Your task to perform on an android device: install app "Gmail" Image 0: 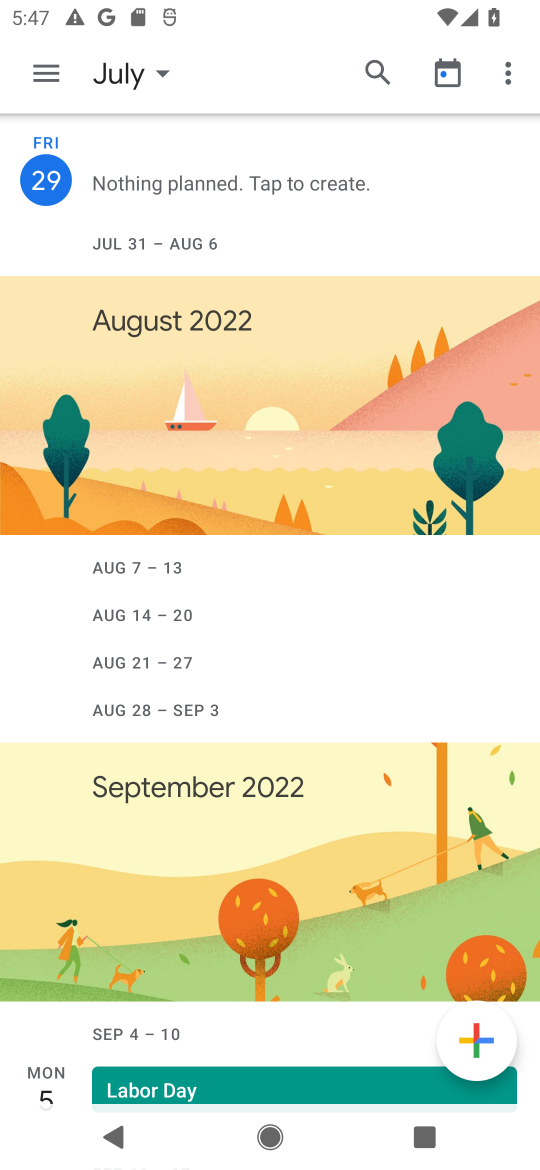
Step 0: press home button
Your task to perform on an android device: install app "Gmail" Image 1: 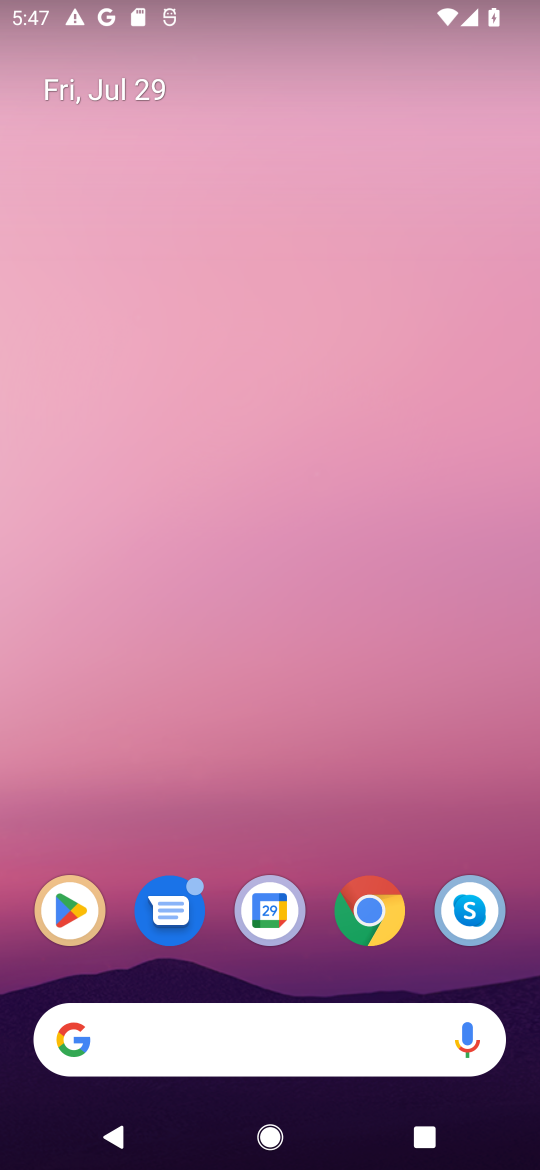
Step 1: drag from (247, 984) to (217, 183)
Your task to perform on an android device: install app "Gmail" Image 2: 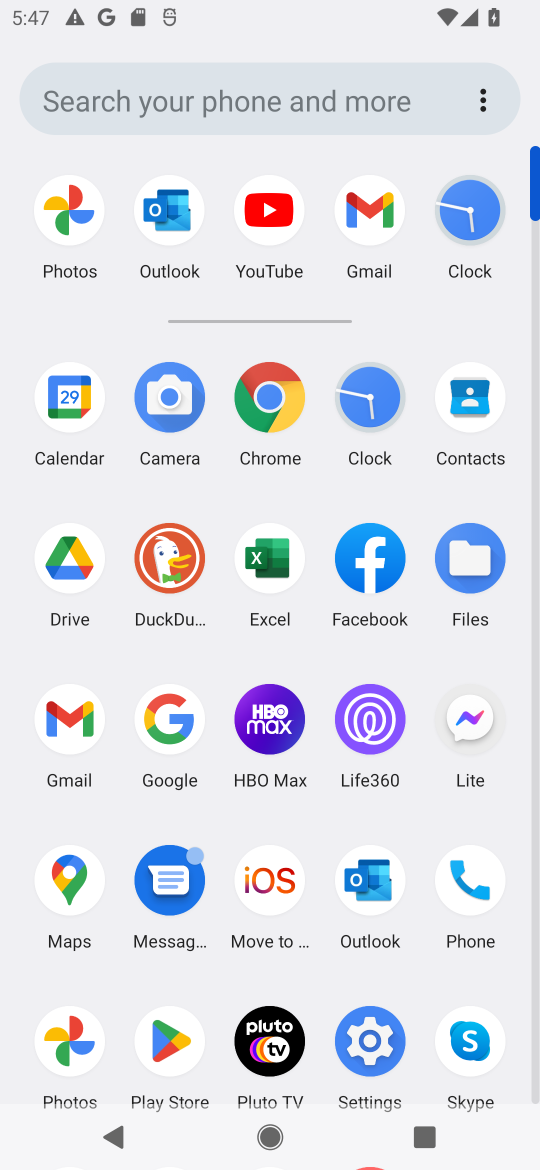
Step 2: click (370, 214)
Your task to perform on an android device: install app "Gmail" Image 3: 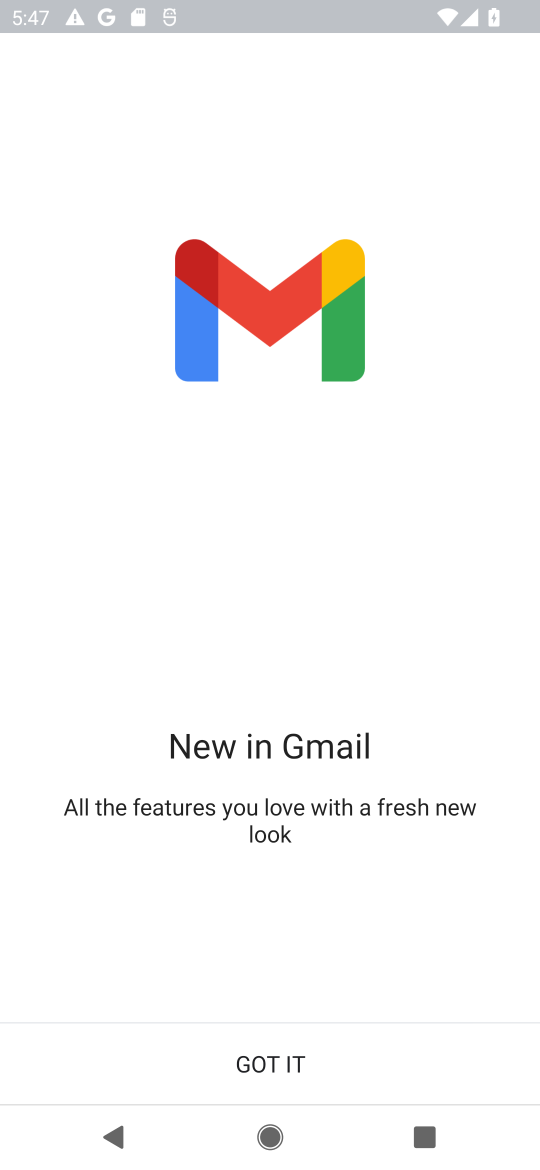
Step 3: click (347, 1078)
Your task to perform on an android device: install app "Gmail" Image 4: 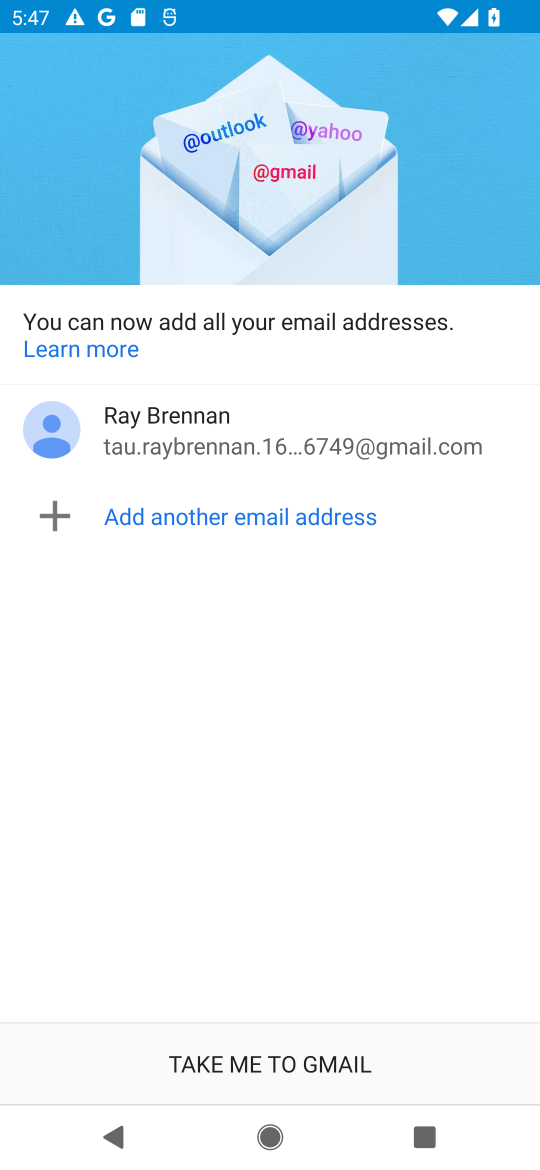
Step 4: click (343, 1061)
Your task to perform on an android device: install app "Gmail" Image 5: 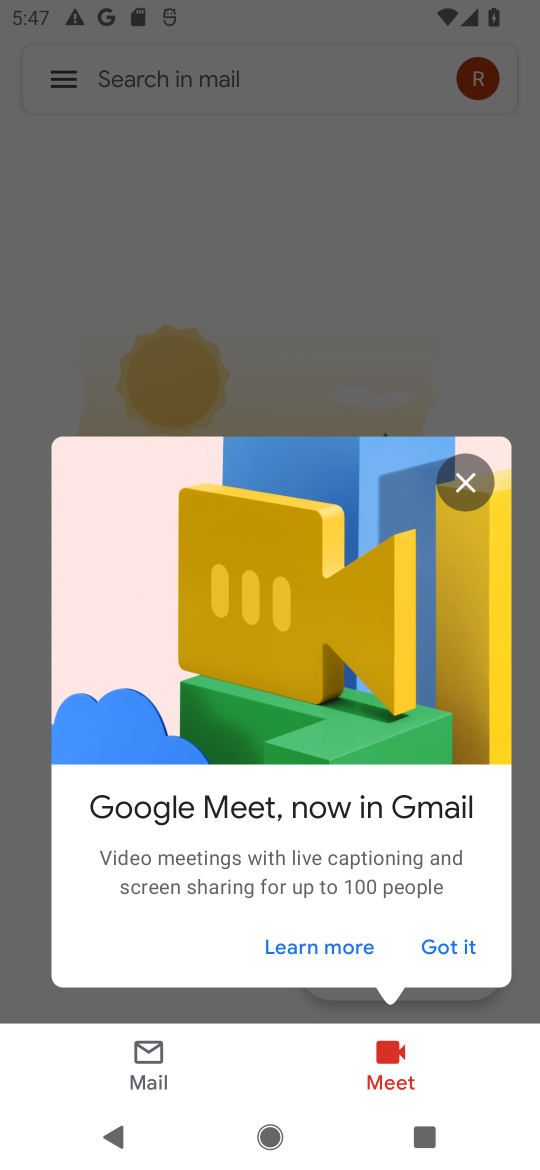
Step 5: click (479, 486)
Your task to perform on an android device: install app "Gmail" Image 6: 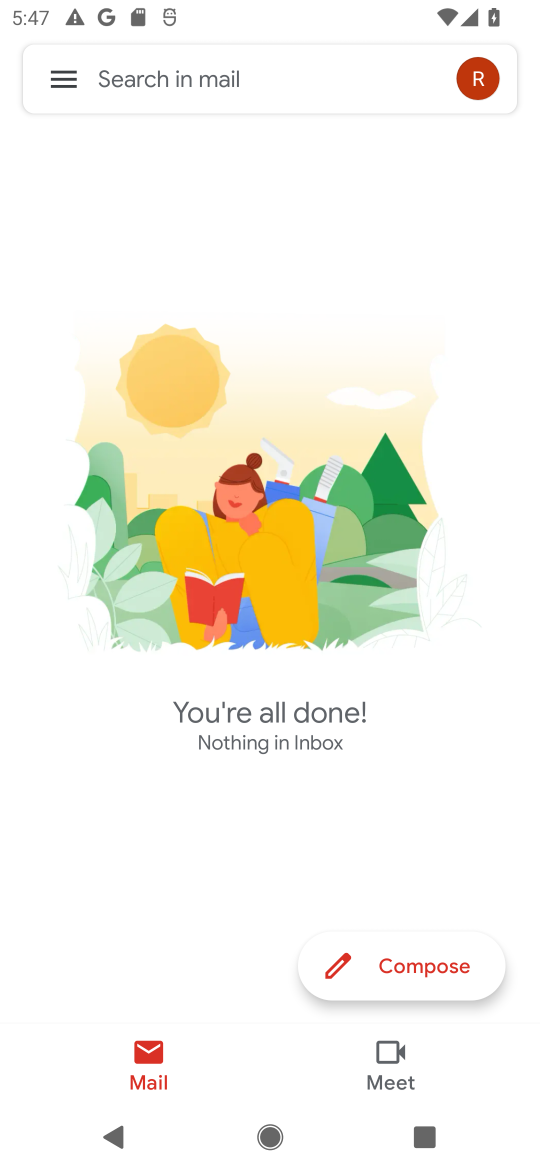
Step 6: task complete